Your task to perform on an android device: Open the map Image 0: 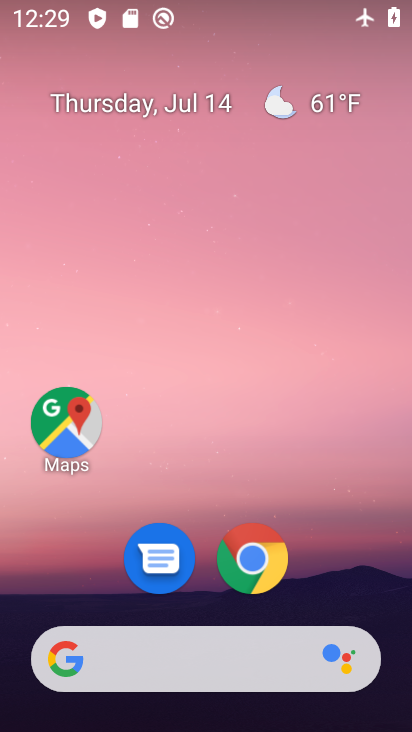
Step 0: click (57, 425)
Your task to perform on an android device: Open the map Image 1: 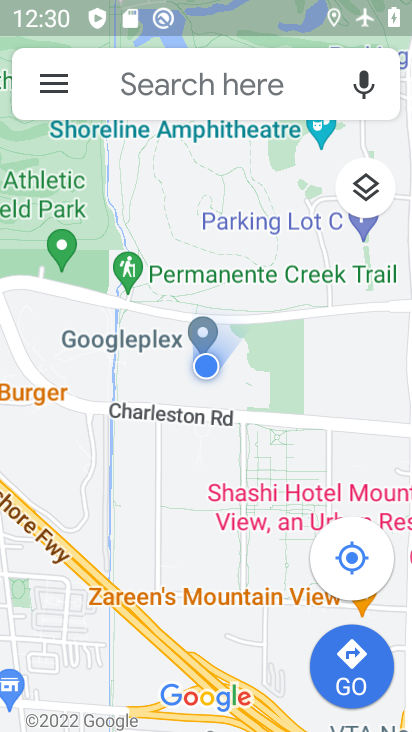
Step 1: task complete